Your task to perform on an android device: change the clock display to analog Image 0: 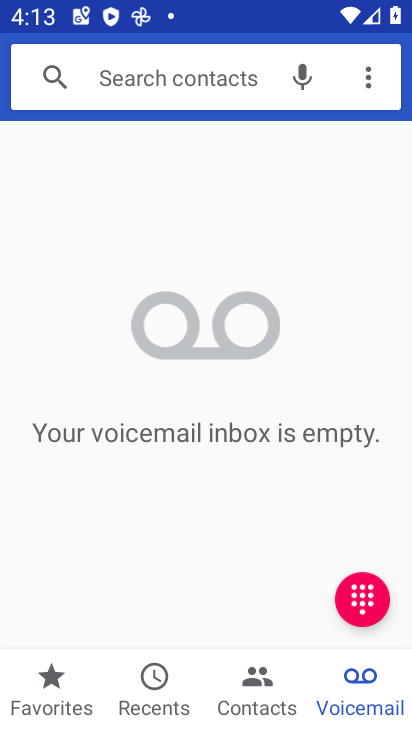
Step 0: press home button
Your task to perform on an android device: change the clock display to analog Image 1: 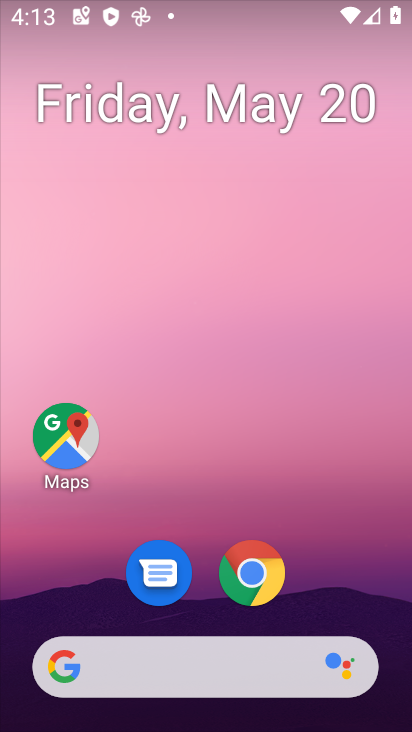
Step 1: drag from (377, 599) to (329, 16)
Your task to perform on an android device: change the clock display to analog Image 2: 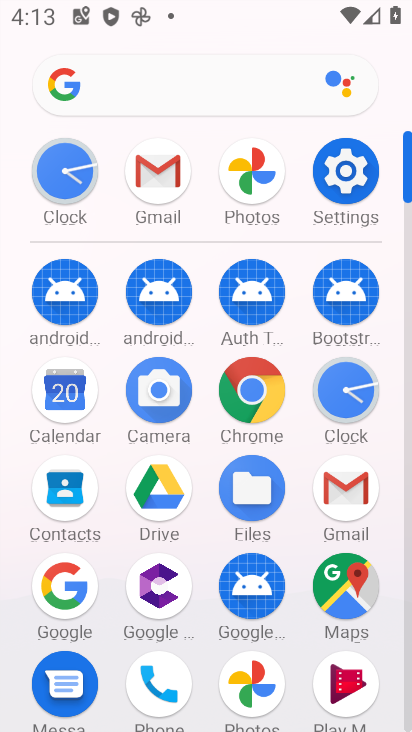
Step 2: click (343, 384)
Your task to perform on an android device: change the clock display to analog Image 3: 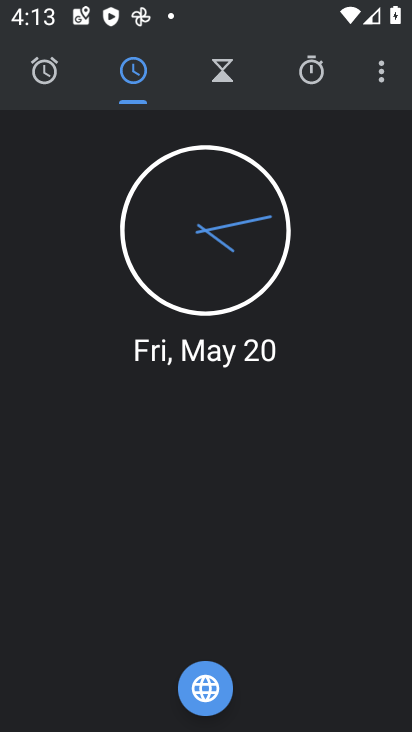
Step 3: click (386, 89)
Your task to perform on an android device: change the clock display to analog Image 4: 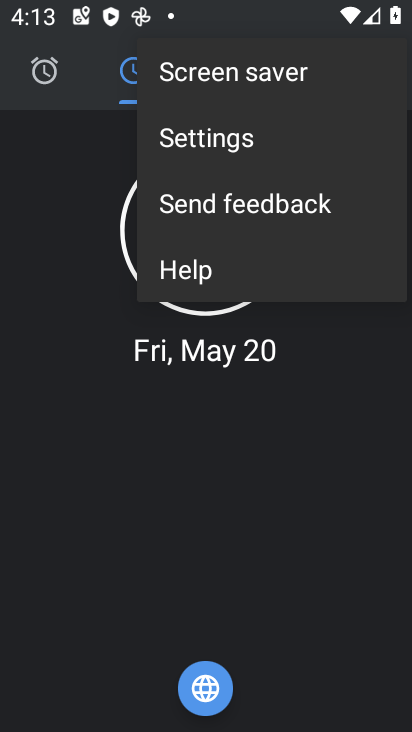
Step 4: click (203, 122)
Your task to perform on an android device: change the clock display to analog Image 5: 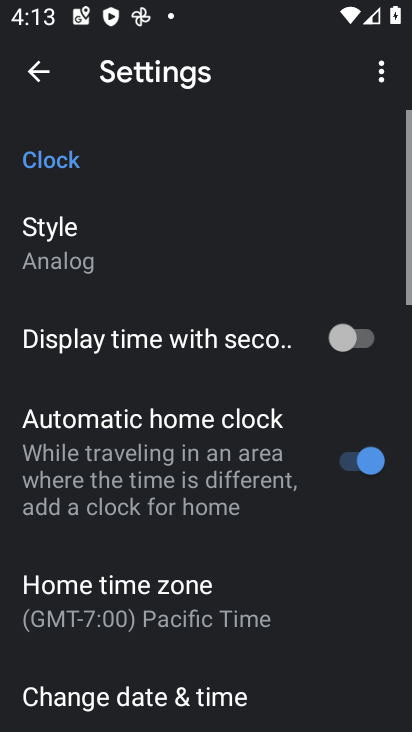
Step 5: click (47, 222)
Your task to perform on an android device: change the clock display to analog Image 6: 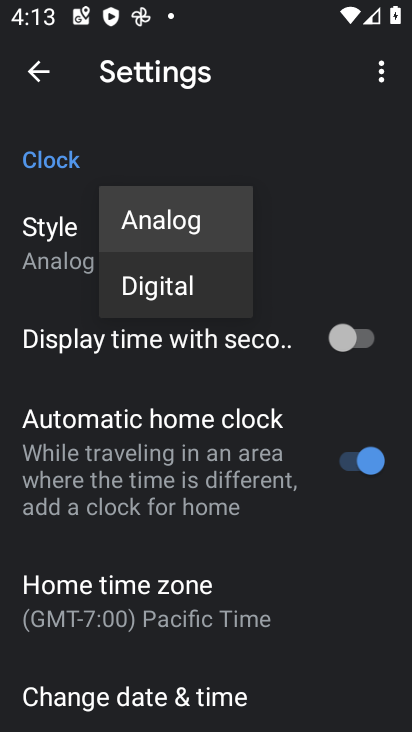
Step 6: task complete